Your task to perform on an android device: Do I have any events this weekend? Image 0: 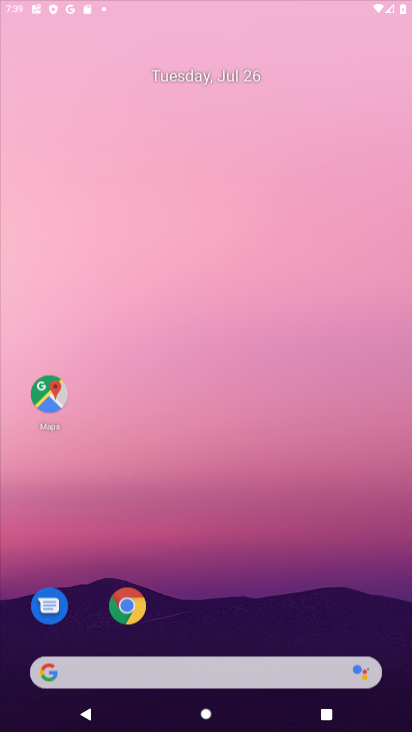
Step 0: click (180, 74)
Your task to perform on an android device: Do I have any events this weekend? Image 1: 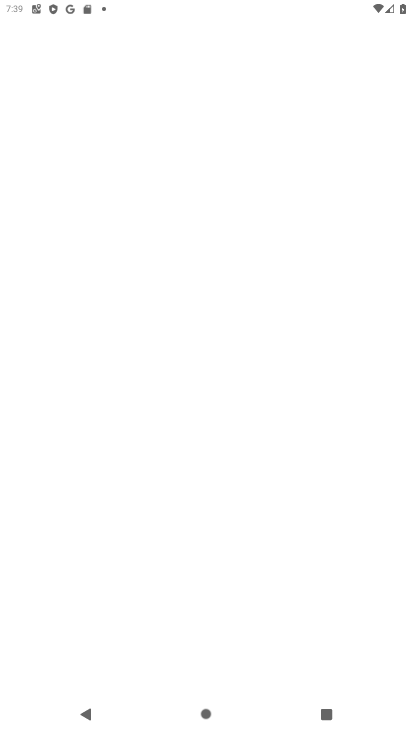
Step 1: click (167, 91)
Your task to perform on an android device: Do I have any events this weekend? Image 2: 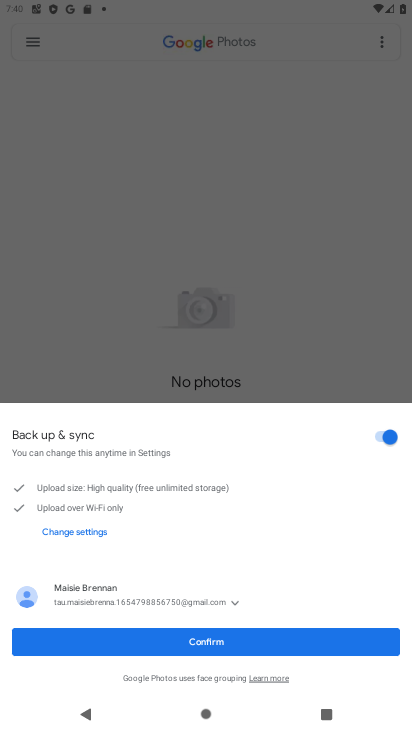
Step 2: click (225, 636)
Your task to perform on an android device: Do I have any events this weekend? Image 3: 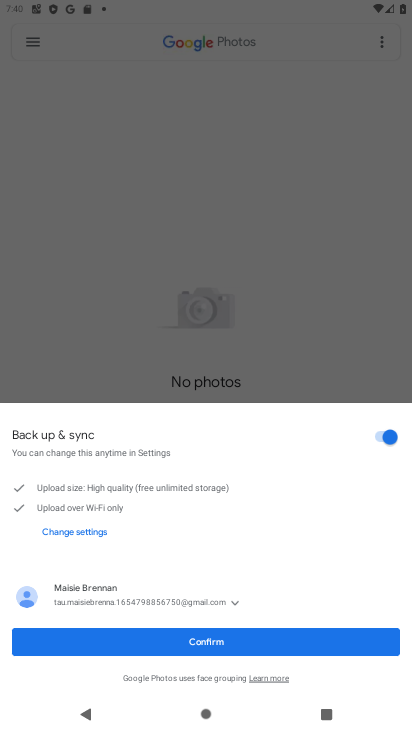
Step 3: click (225, 636)
Your task to perform on an android device: Do I have any events this weekend? Image 4: 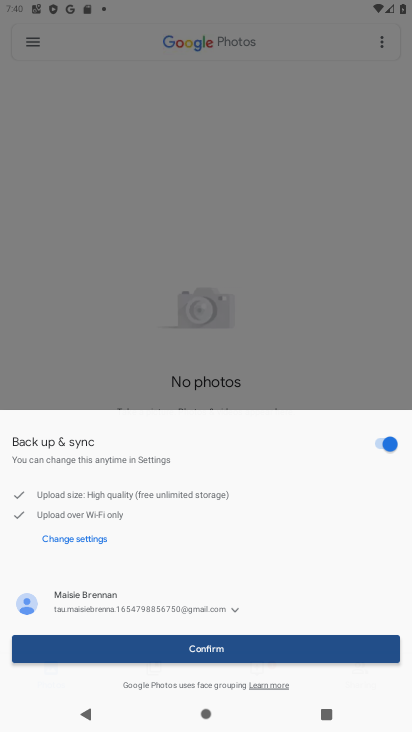
Step 4: click (225, 636)
Your task to perform on an android device: Do I have any events this weekend? Image 5: 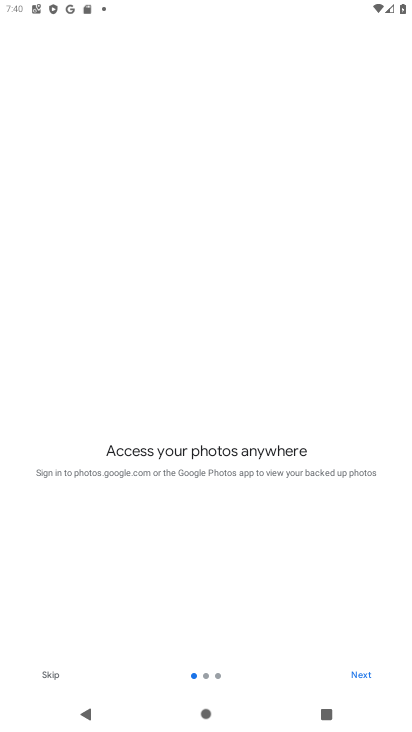
Step 5: click (369, 675)
Your task to perform on an android device: Do I have any events this weekend? Image 6: 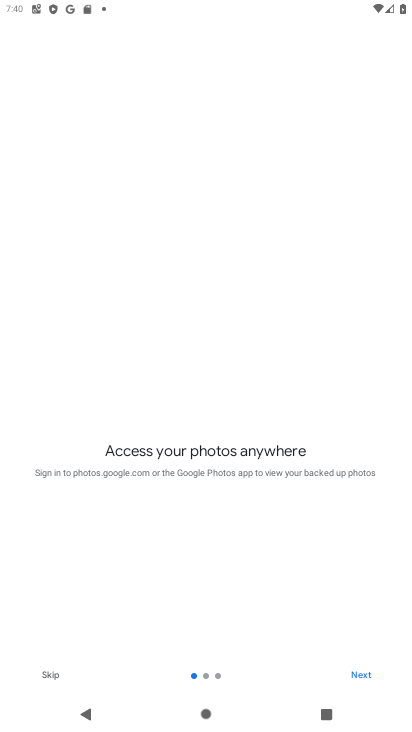
Step 6: click (368, 676)
Your task to perform on an android device: Do I have any events this weekend? Image 7: 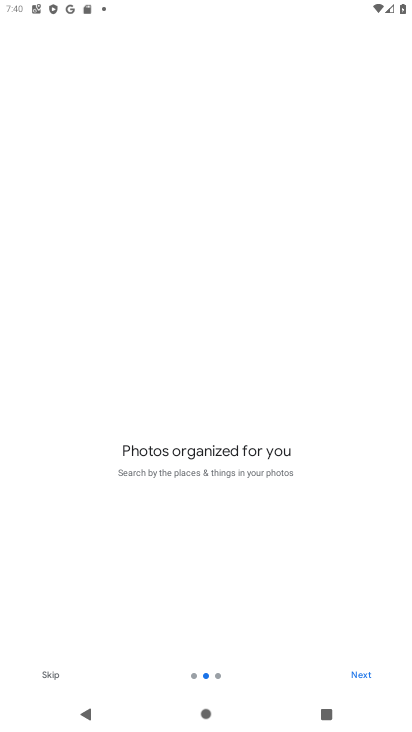
Step 7: click (366, 676)
Your task to perform on an android device: Do I have any events this weekend? Image 8: 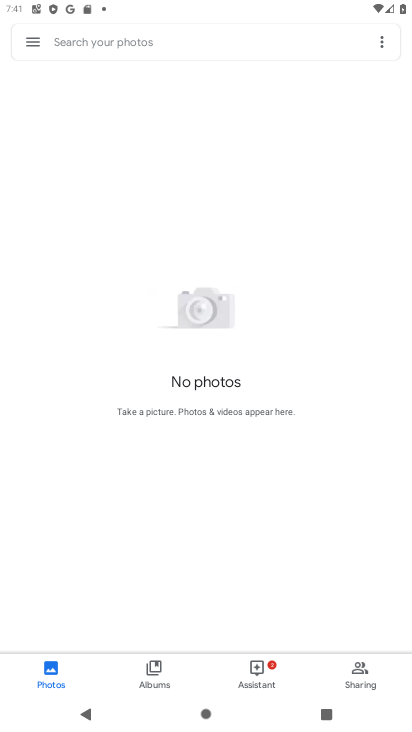
Step 8: press back button
Your task to perform on an android device: Do I have any events this weekend? Image 9: 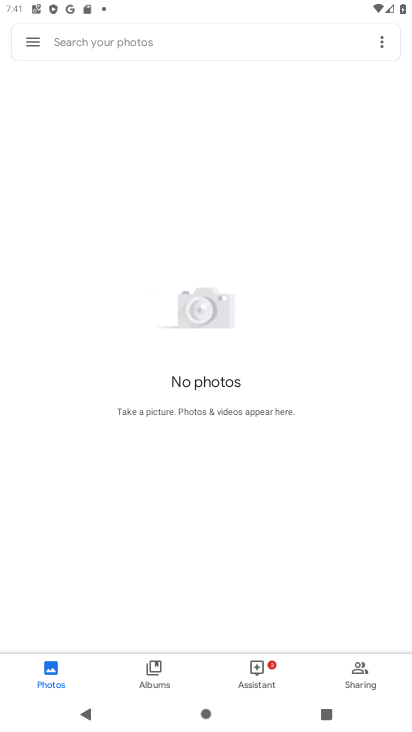
Step 9: press back button
Your task to perform on an android device: Do I have any events this weekend? Image 10: 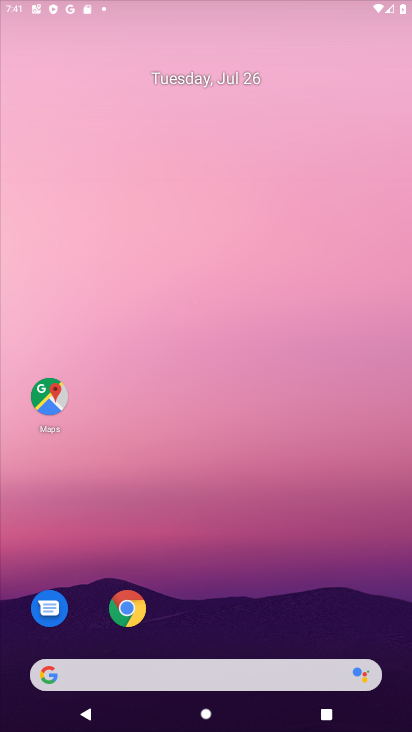
Step 10: press back button
Your task to perform on an android device: Do I have any events this weekend? Image 11: 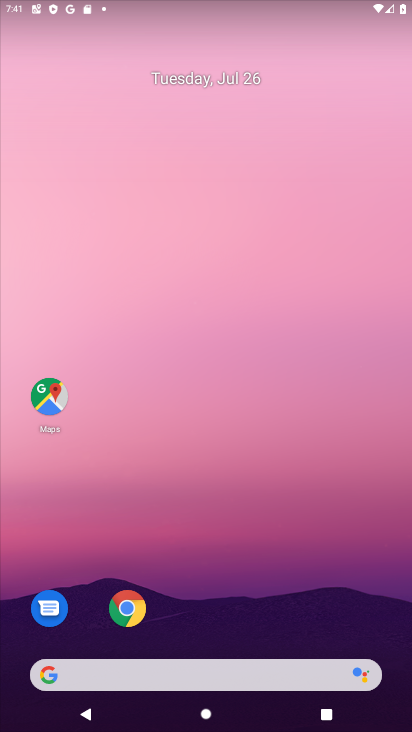
Step 11: press back button
Your task to perform on an android device: Do I have any events this weekend? Image 12: 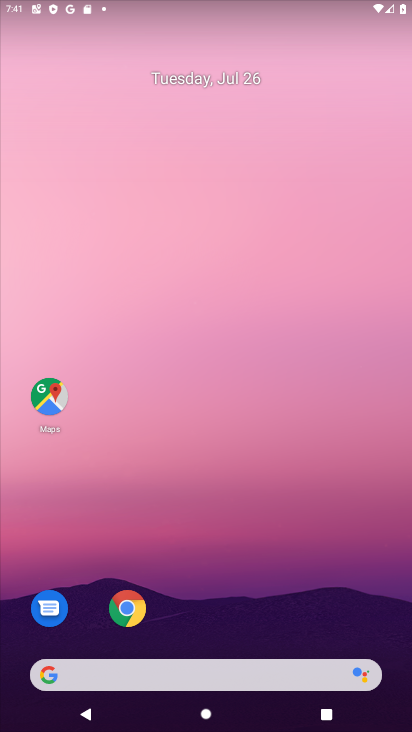
Step 12: press back button
Your task to perform on an android device: Do I have any events this weekend? Image 13: 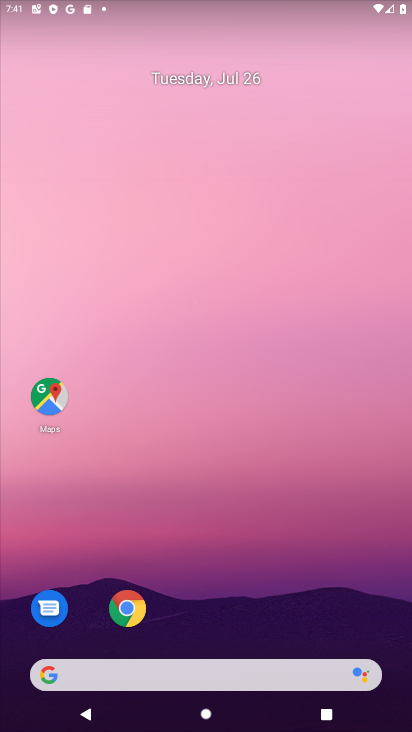
Step 13: drag from (82, 522) to (82, 176)
Your task to perform on an android device: Do I have any events this weekend? Image 14: 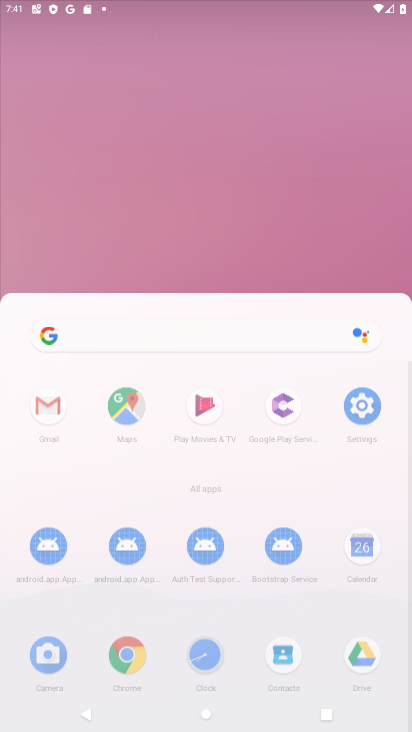
Step 14: drag from (176, 594) to (176, 185)
Your task to perform on an android device: Do I have any events this weekend? Image 15: 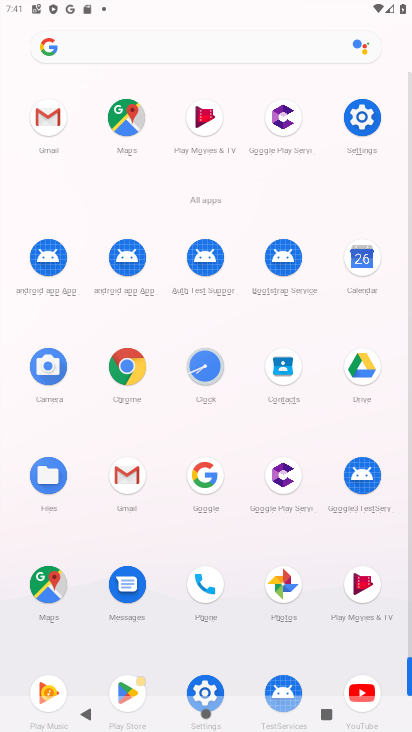
Step 15: drag from (231, 589) to (185, 123)
Your task to perform on an android device: Do I have any events this weekend? Image 16: 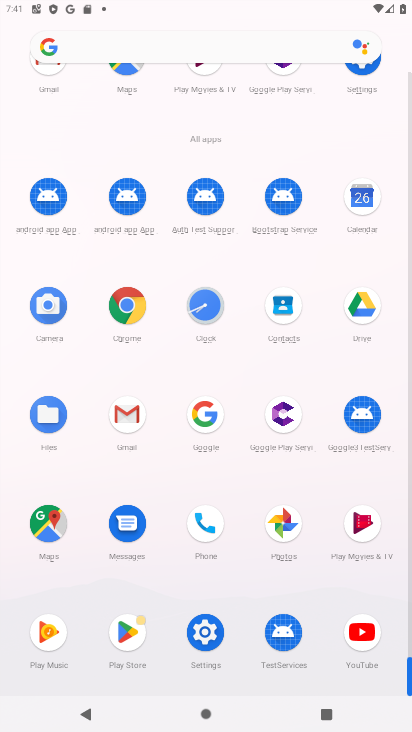
Step 16: click (364, 198)
Your task to perform on an android device: Do I have any events this weekend? Image 17: 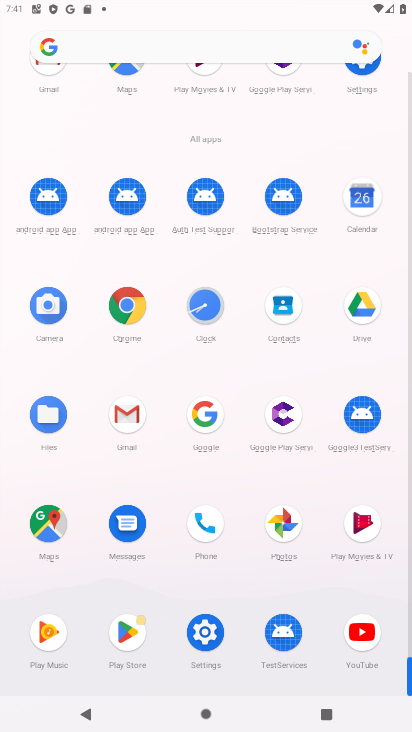
Step 17: click (364, 198)
Your task to perform on an android device: Do I have any events this weekend? Image 18: 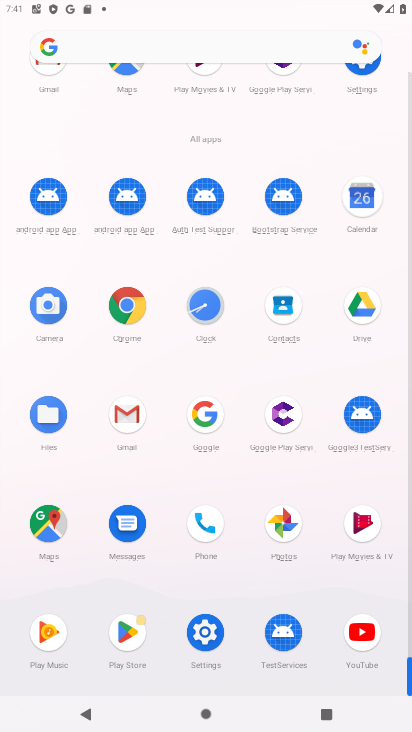
Step 18: click (365, 197)
Your task to perform on an android device: Do I have any events this weekend? Image 19: 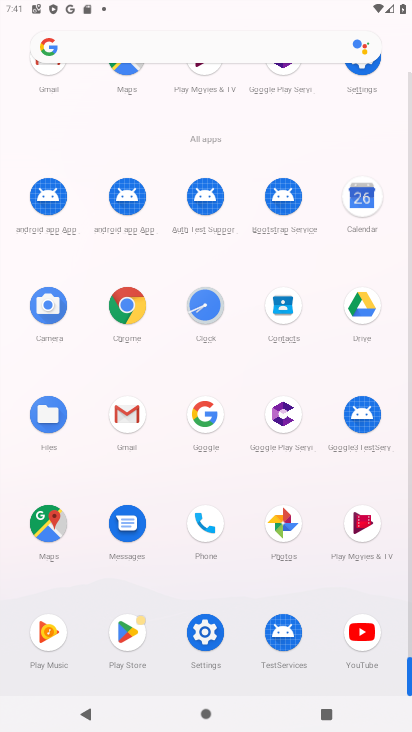
Step 19: click (365, 197)
Your task to perform on an android device: Do I have any events this weekend? Image 20: 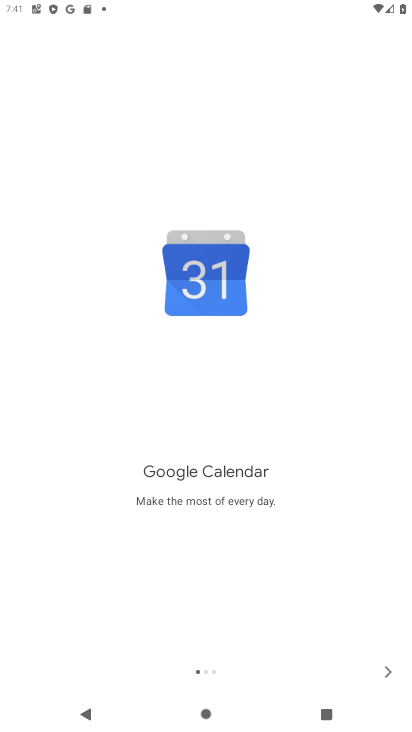
Step 20: click (379, 674)
Your task to perform on an android device: Do I have any events this weekend? Image 21: 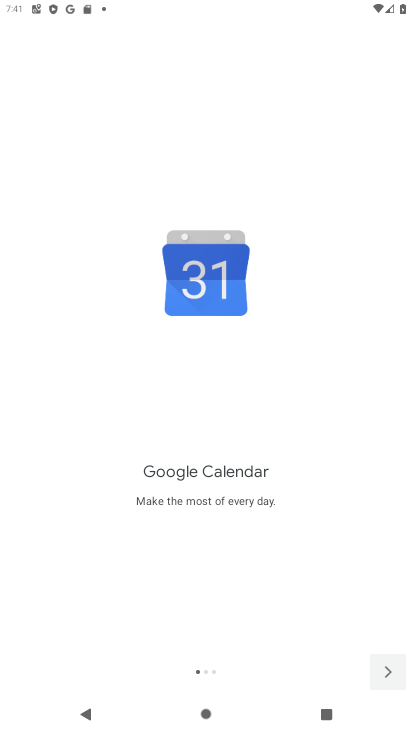
Step 21: click (396, 663)
Your task to perform on an android device: Do I have any events this weekend? Image 22: 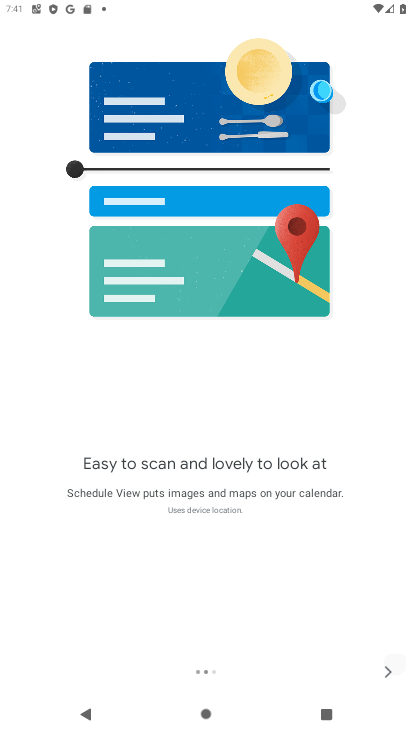
Step 22: click (393, 666)
Your task to perform on an android device: Do I have any events this weekend? Image 23: 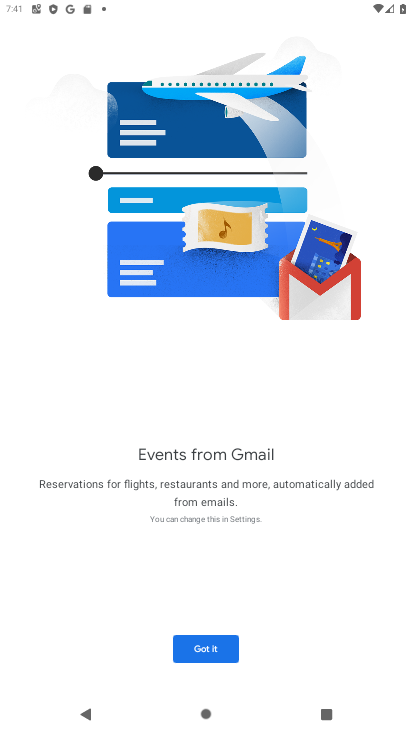
Step 23: click (223, 647)
Your task to perform on an android device: Do I have any events this weekend? Image 24: 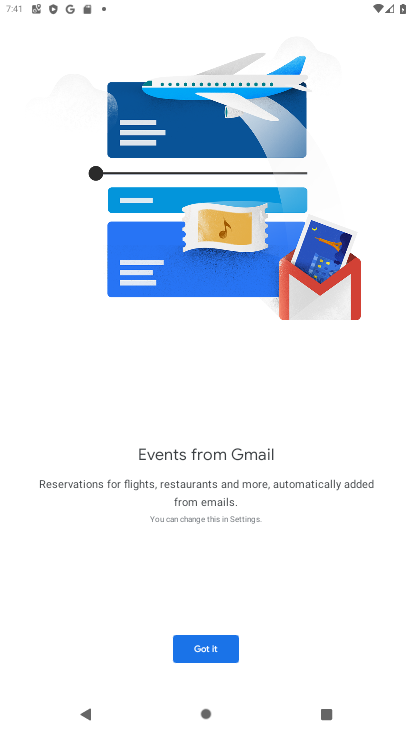
Step 24: click (223, 647)
Your task to perform on an android device: Do I have any events this weekend? Image 25: 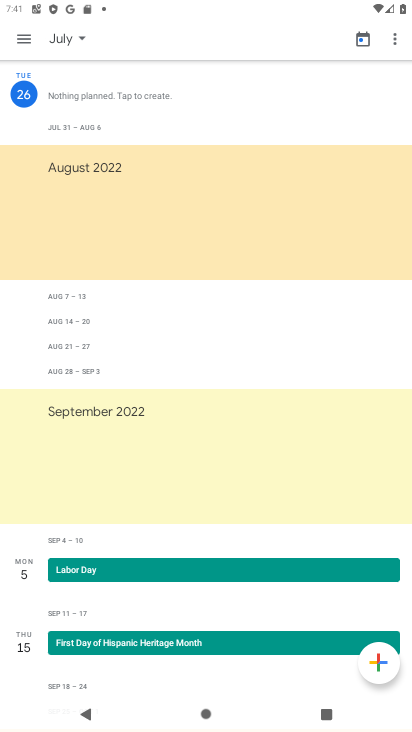
Step 25: click (80, 39)
Your task to perform on an android device: Do I have any events this weekend? Image 26: 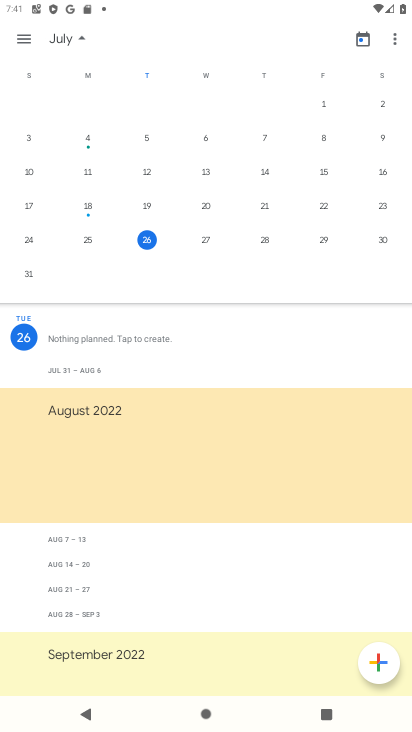
Step 26: click (325, 236)
Your task to perform on an android device: Do I have any events this weekend? Image 27: 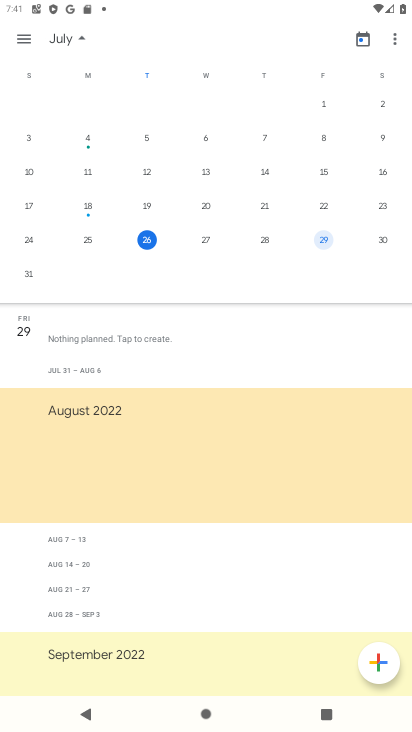
Step 27: task complete